Your task to perform on an android device: Open internet settings Image 0: 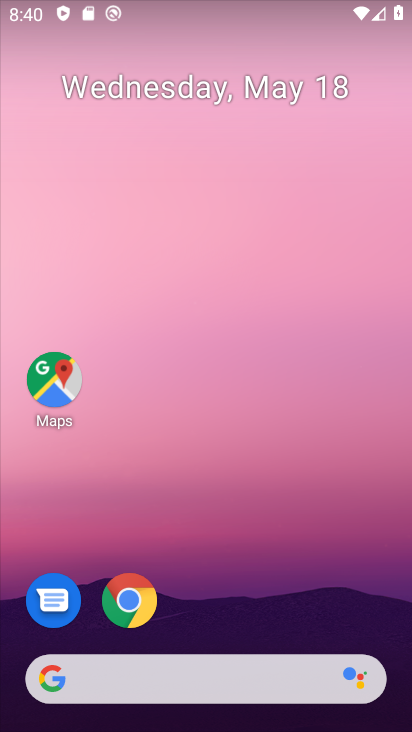
Step 0: drag from (20, 731) to (237, 239)
Your task to perform on an android device: Open internet settings Image 1: 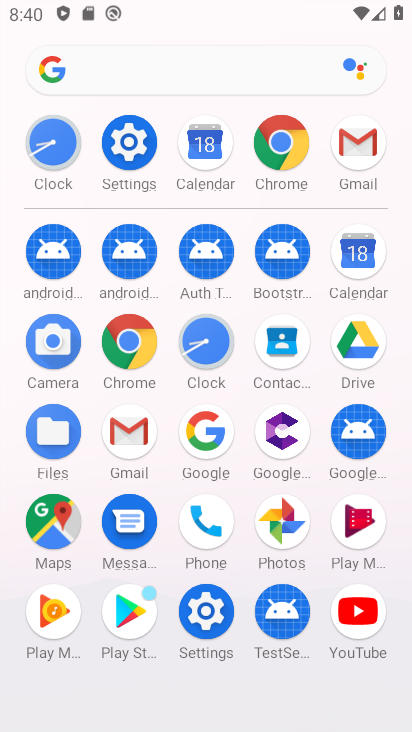
Step 1: click (128, 144)
Your task to perform on an android device: Open internet settings Image 2: 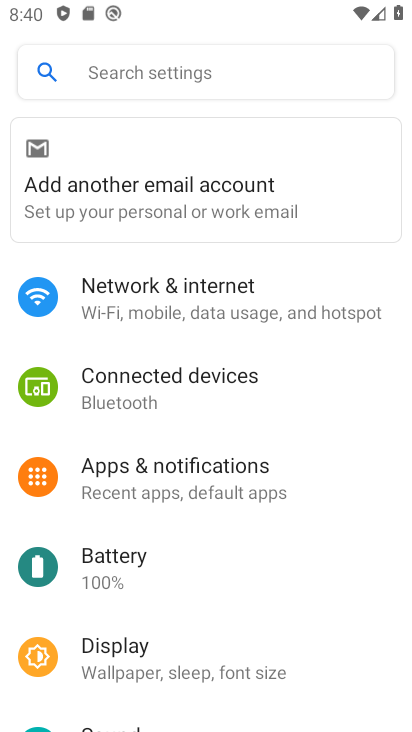
Step 2: click (210, 309)
Your task to perform on an android device: Open internet settings Image 3: 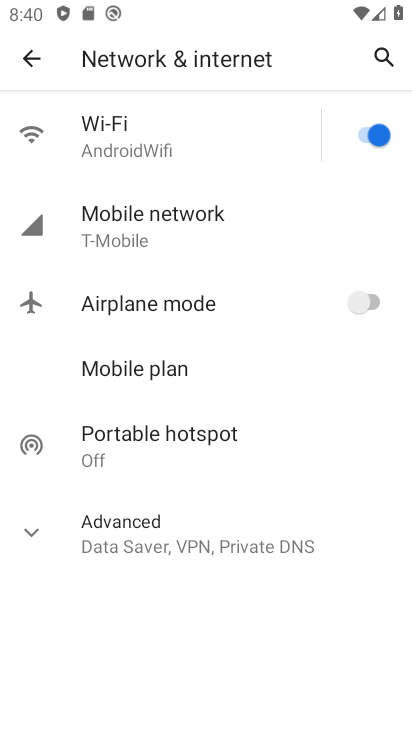
Step 3: click (215, 225)
Your task to perform on an android device: Open internet settings Image 4: 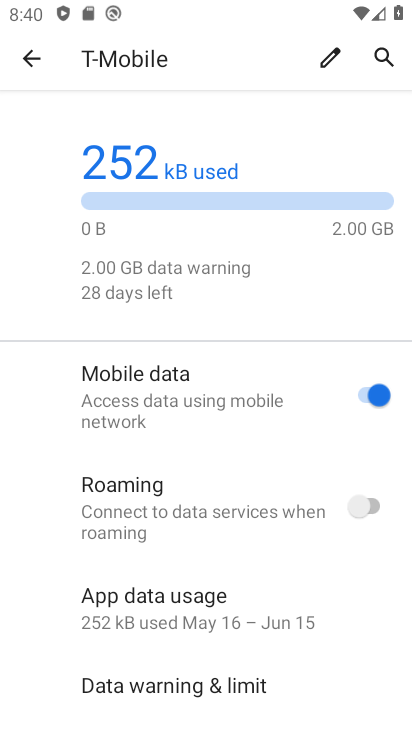
Step 4: task complete